Your task to perform on an android device: What's the weather going to be this weekend? Image 0: 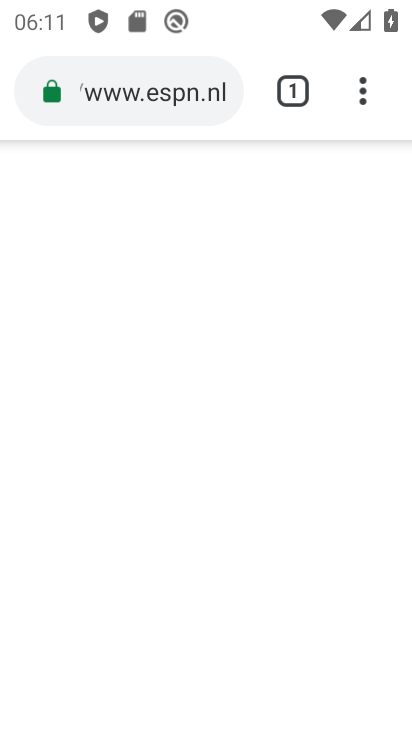
Step 0: press home button
Your task to perform on an android device: What's the weather going to be this weekend? Image 1: 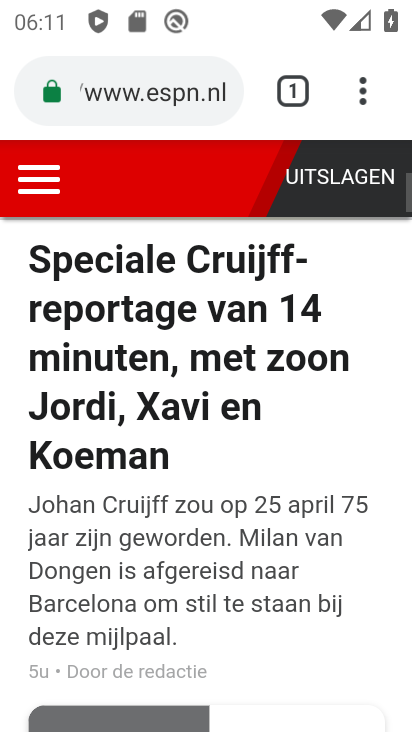
Step 1: press home button
Your task to perform on an android device: What's the weather going to be this weekend? Image 2: 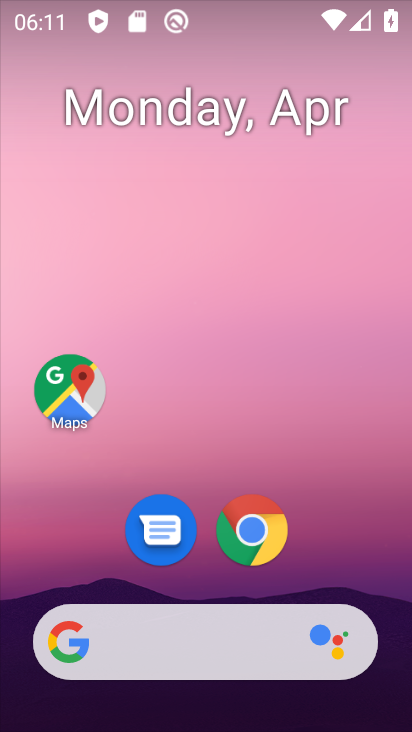
Step 2: drag from (53, 262) to (405, 296)
Your task to perform on an android device: What's the weather going to be this weekend? Image 3: 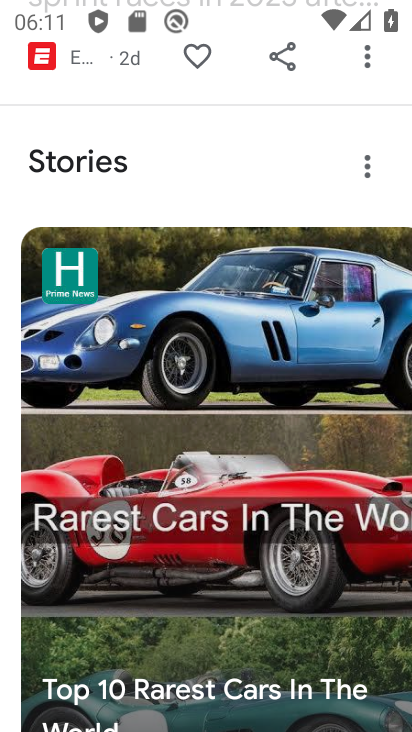
Step 3: drag from (189, 139) to (175, 577)
Your task to perform on an android device: What's the weather going to be this weekend? Image 4: 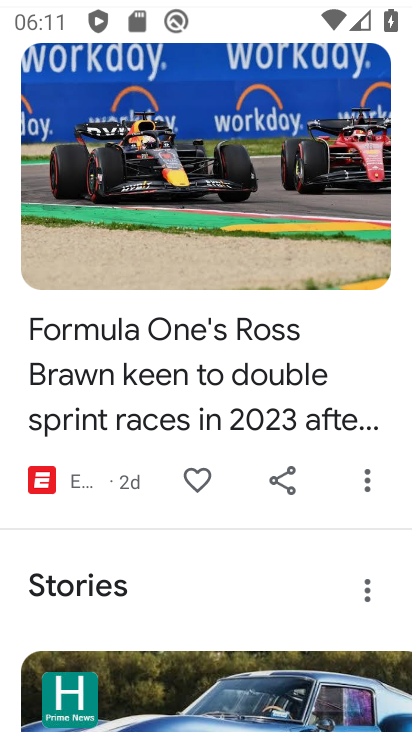
Step 4: drag from (187, 160) to (195, 730)
Your task to perform on an android device: What's the weather going to be this weekend? Image 5: 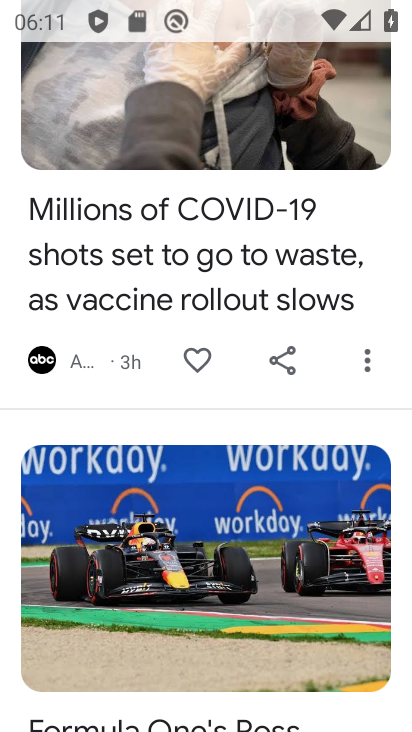
Step 5: drag from (210, 108) to (186, 730)
Your task to perform on an android device: What's the weather going to be this weekend? Image 6: 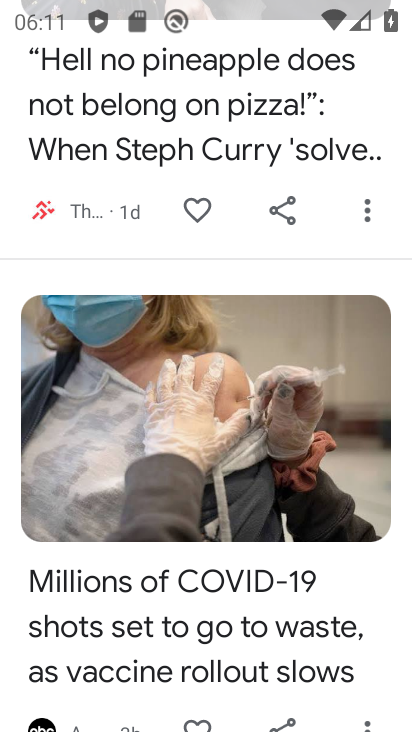
Step 6: drag from (204, 119) to (199, 725)
Your task to perform on an android device: What's the weather going to be this weekend? Image 7: 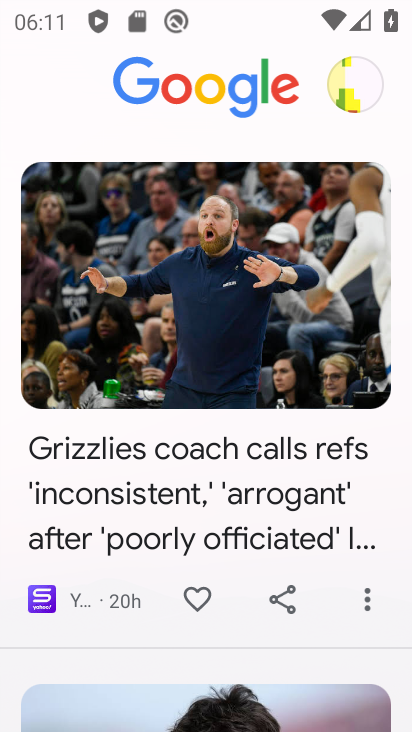
Step 7: press back button
Your task to perform on an android device: What's the weather going to be this weekend? Image 8: 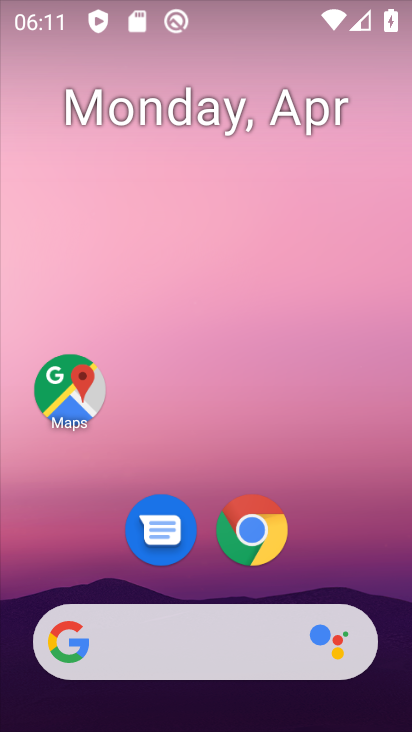
Step 8: click (183, 643)
Your task to perform on an android device: What's the weather going to be this weekend? Image 9: 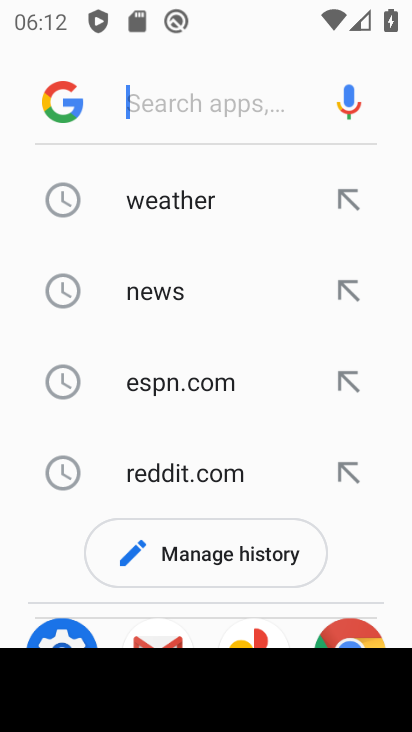
Step 9: click (206, 200)
Your task to perform on an android device: What's the weather going to be this weekend? Image 10: 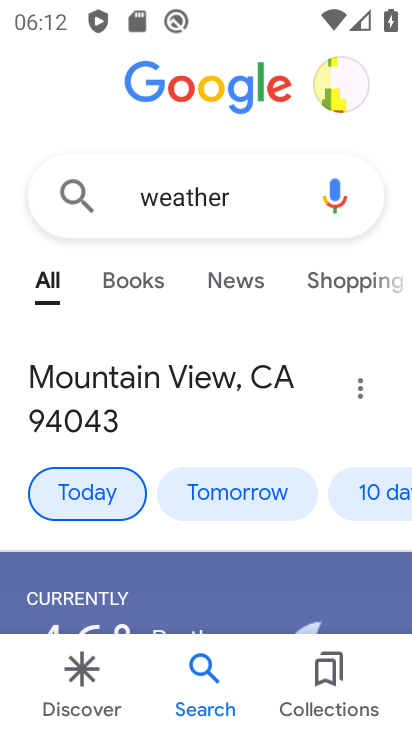
Step 10: click (355, 493)
Your task to perform on an android device: What's the weather going to be this weekend? Image 11: 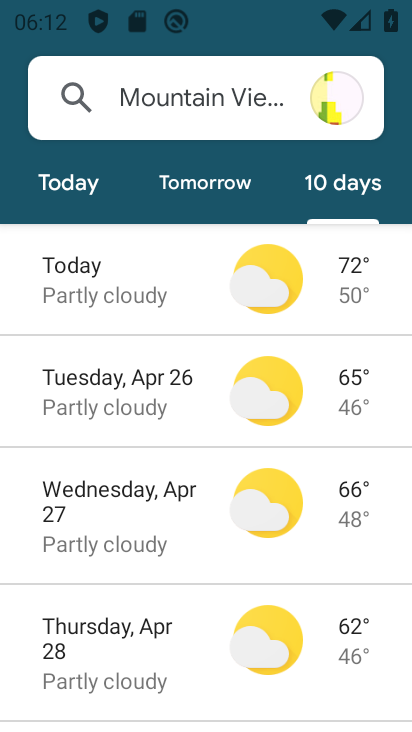
Step 11: task complete